Your task to perform on an android device: toggle show notifications on the lock screen Image 0: 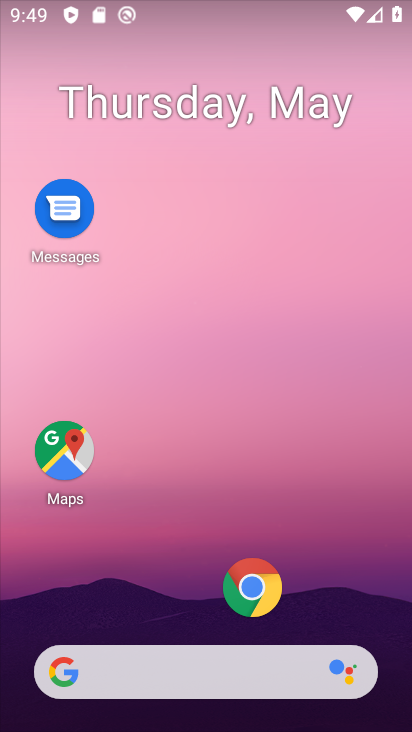
Step 0: drag from (162, 646) to (229, 0)
Your task to perform on an android device: toggle show notifications on the lock screen Image 1: 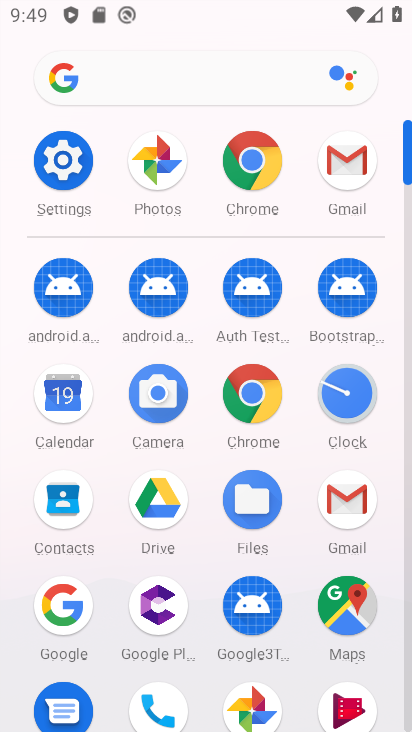
Step 1: click (65, 173)
Your task to perform on an android device: toggle show notifications on the lock screen Image 2: 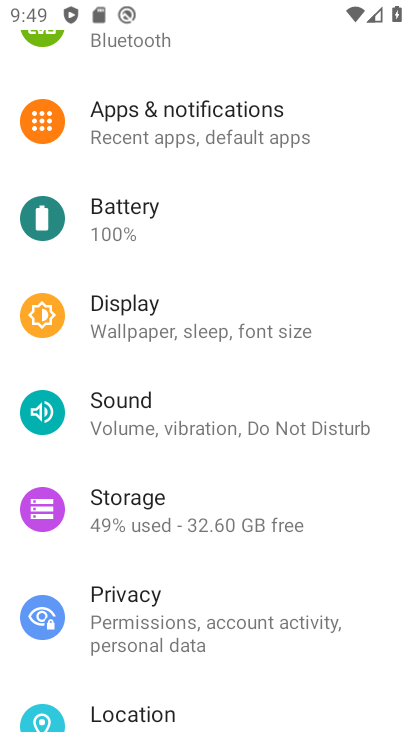
Step 2: click (105, 128)
Your task to perform on an android device: toggle show notifications on the lock screen Image 3: 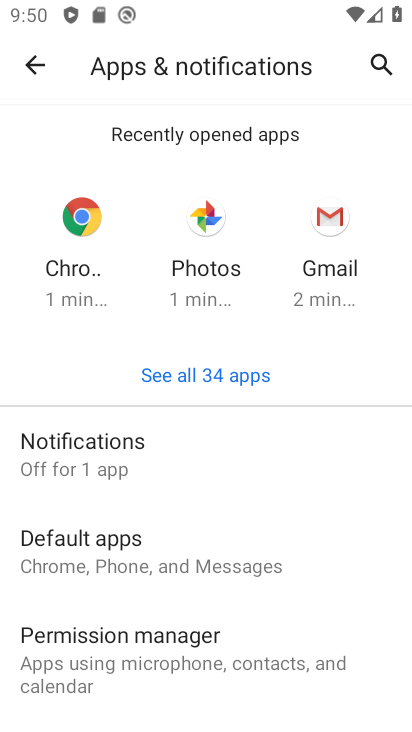
Step 3: click (75, 430)
Your task to perform on an android device: toggle show notifications on the lock screen Image 4: 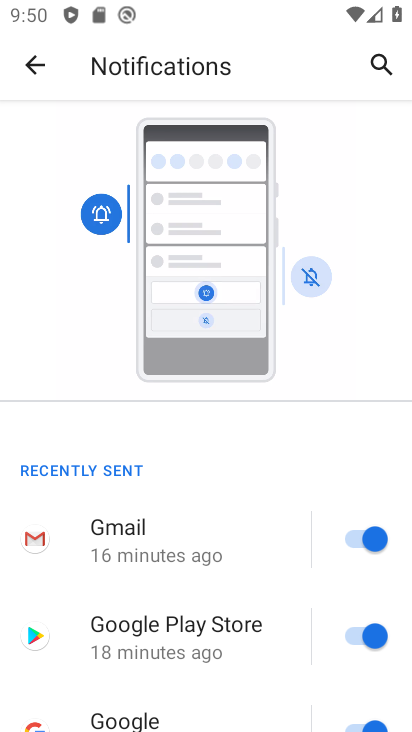
Step 4: drag from (174, 632) to (203, 120)
Your task to perform on an android device: toggle show notifications on the lock screen Image 5: 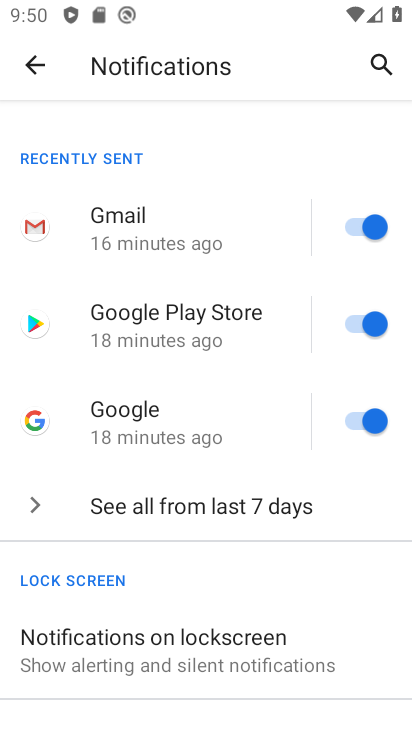
Step 5: click (132, 637)
Your task to perform on an android device: toggle show notifications on the lock screen Image 6: 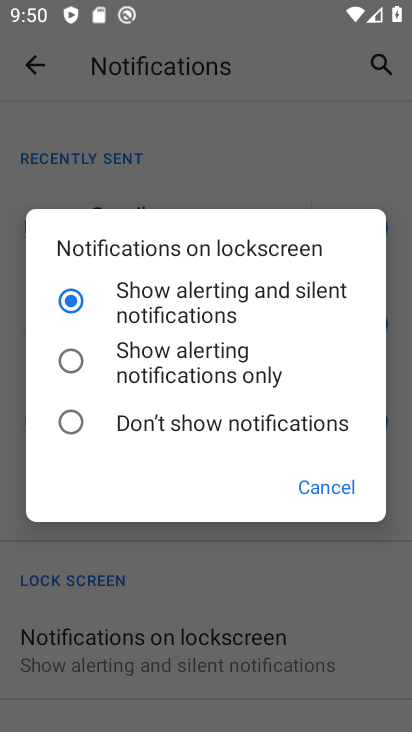
Step 6: task complete